Your task to perform on an android device: check battery use Image 0: 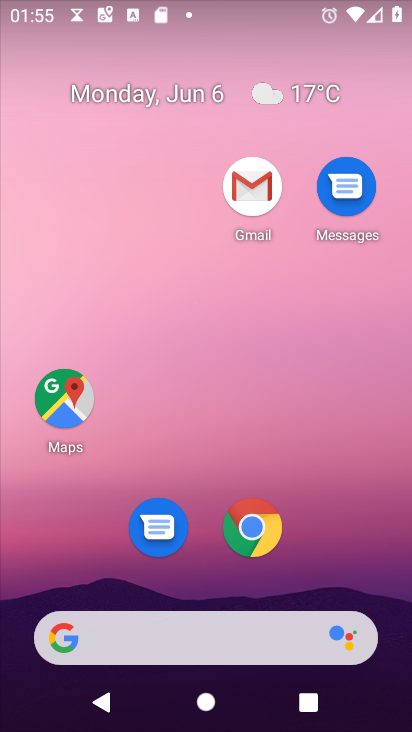
Step 0: drag from (308, 536) to (3, 135)
Your task to perform on an android device: check battery use Image 1: 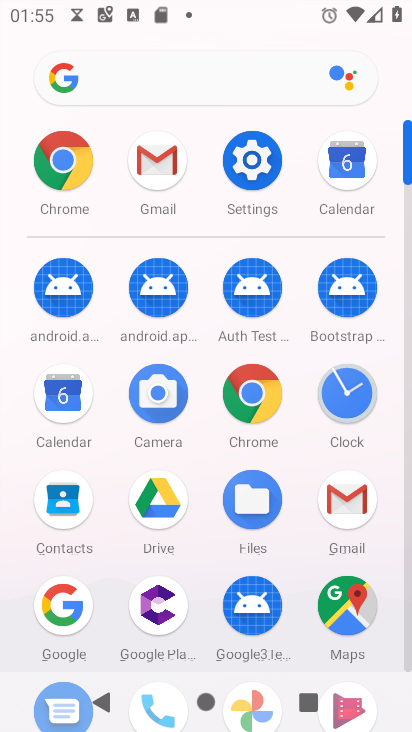
Step 1: click (264, 147)
Your task to perform on an android device: check battery use Image 2: 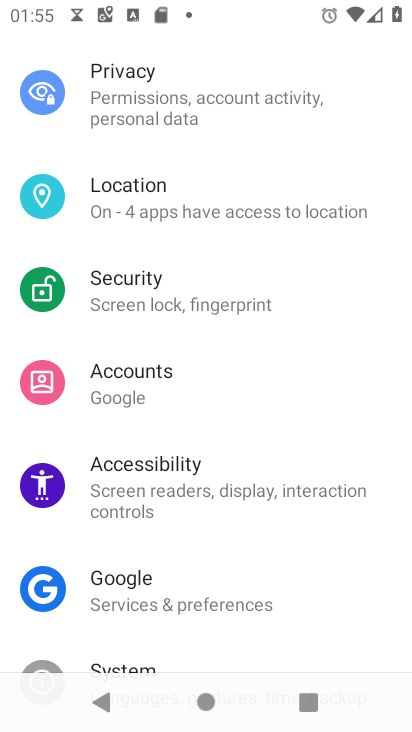
Step 2: drag from (191, 221) to (199, 482)
Your task to perform on an android device: check battery use Image 3: 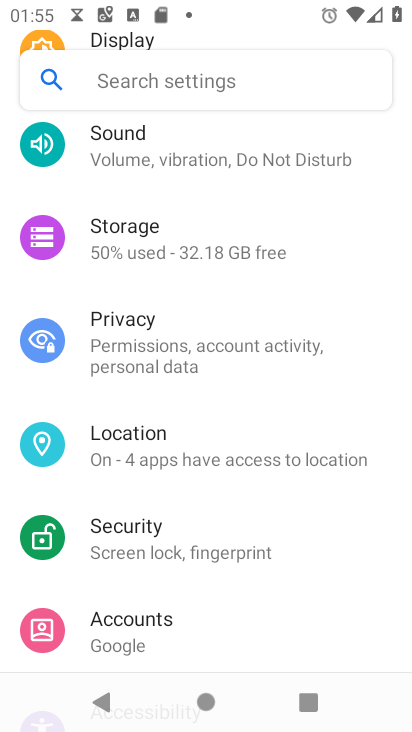
Step 3: click (192, 192)
Your task to perform on an android device: check battery use Image 4: 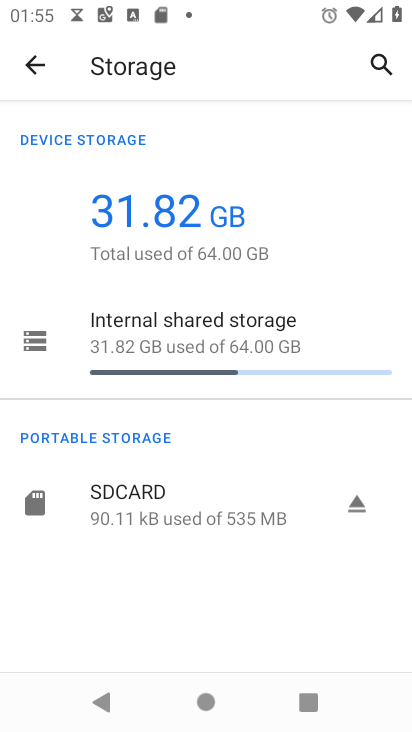
Step 4: click (33, 68)
Your task to perform on an android device: check battery use Image 5: 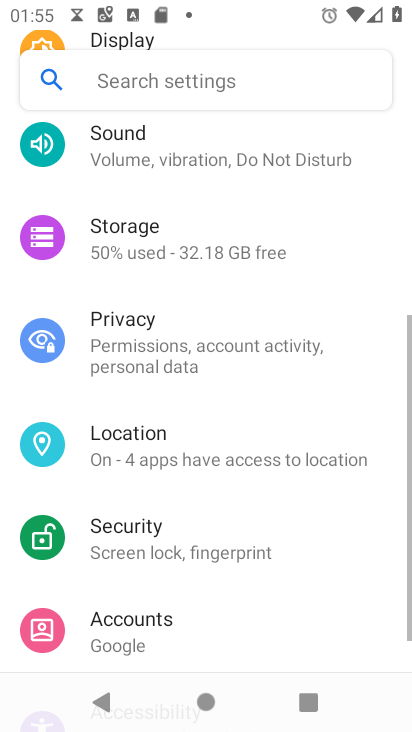
Step 5: drag from (33, 68) to (87, 389)
Your task to perform on an android device: check battery use Image 6: 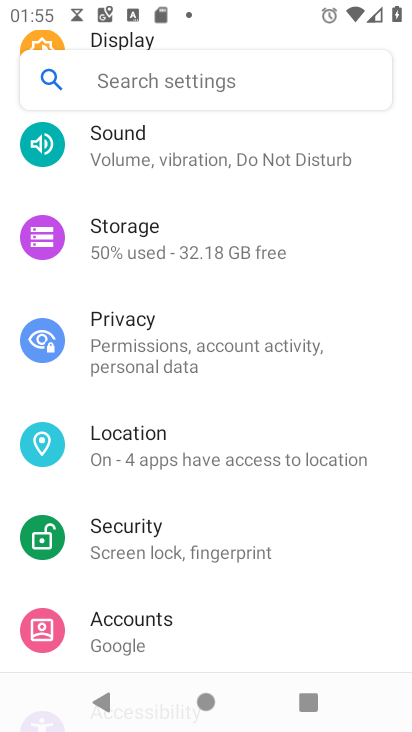
Step 6: drag from (154, 164) to (195, 434)
Your task to perform on an android device: check battery use Image 7: 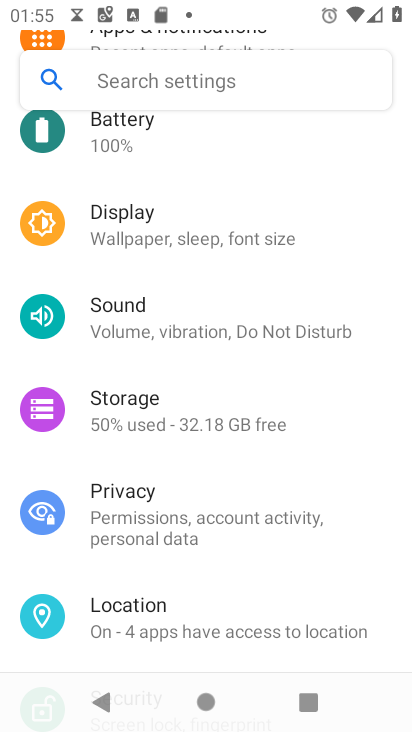
Step 7: click (148, 150)
Your task to perform on an android device: check battery use Image 8: 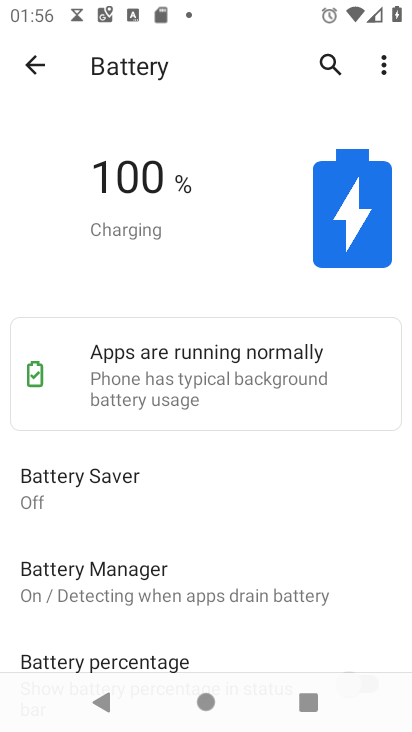
Step 8: task complete